Your task to perform on an android device: Go to notification settings Image 0: 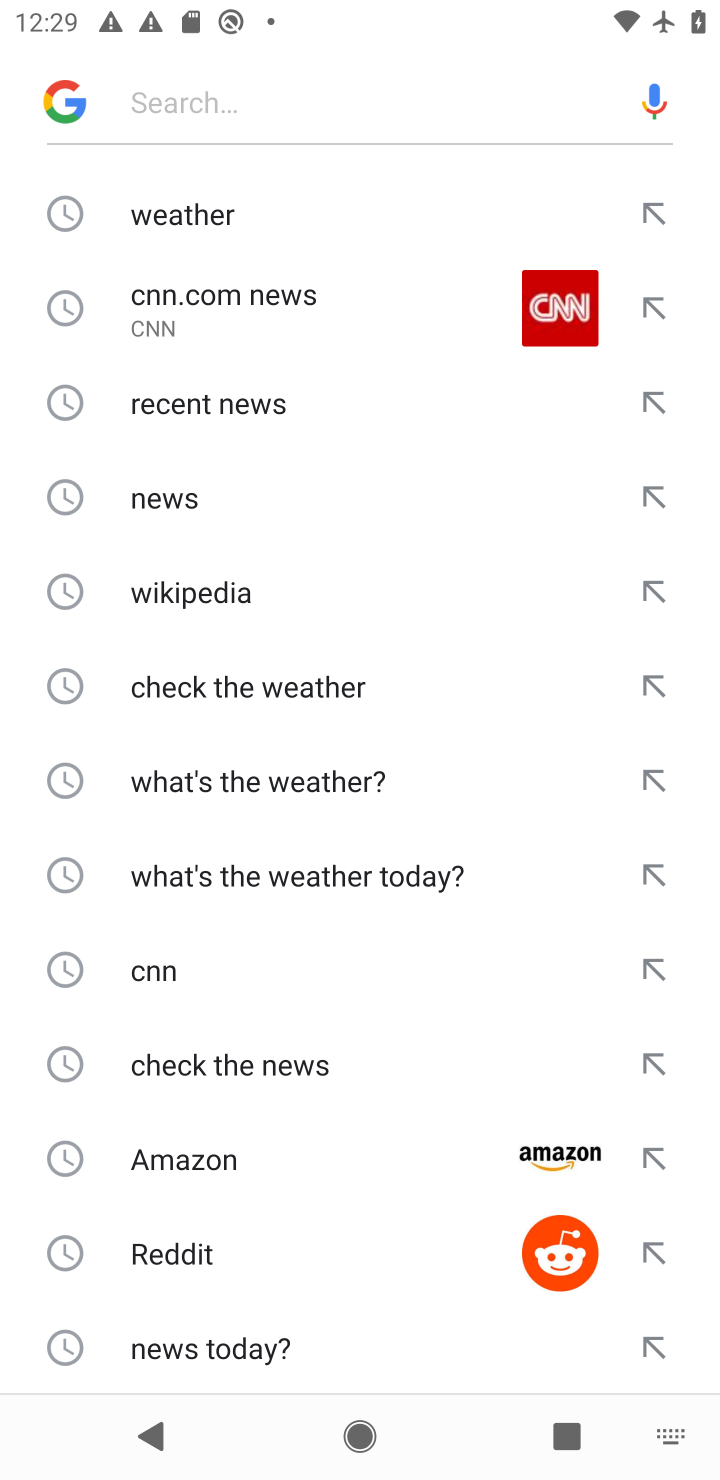
Step 0: drag from (377, 1297) to (286, 565)
Your task to perform on an android device: Go to notification settings Image 1: 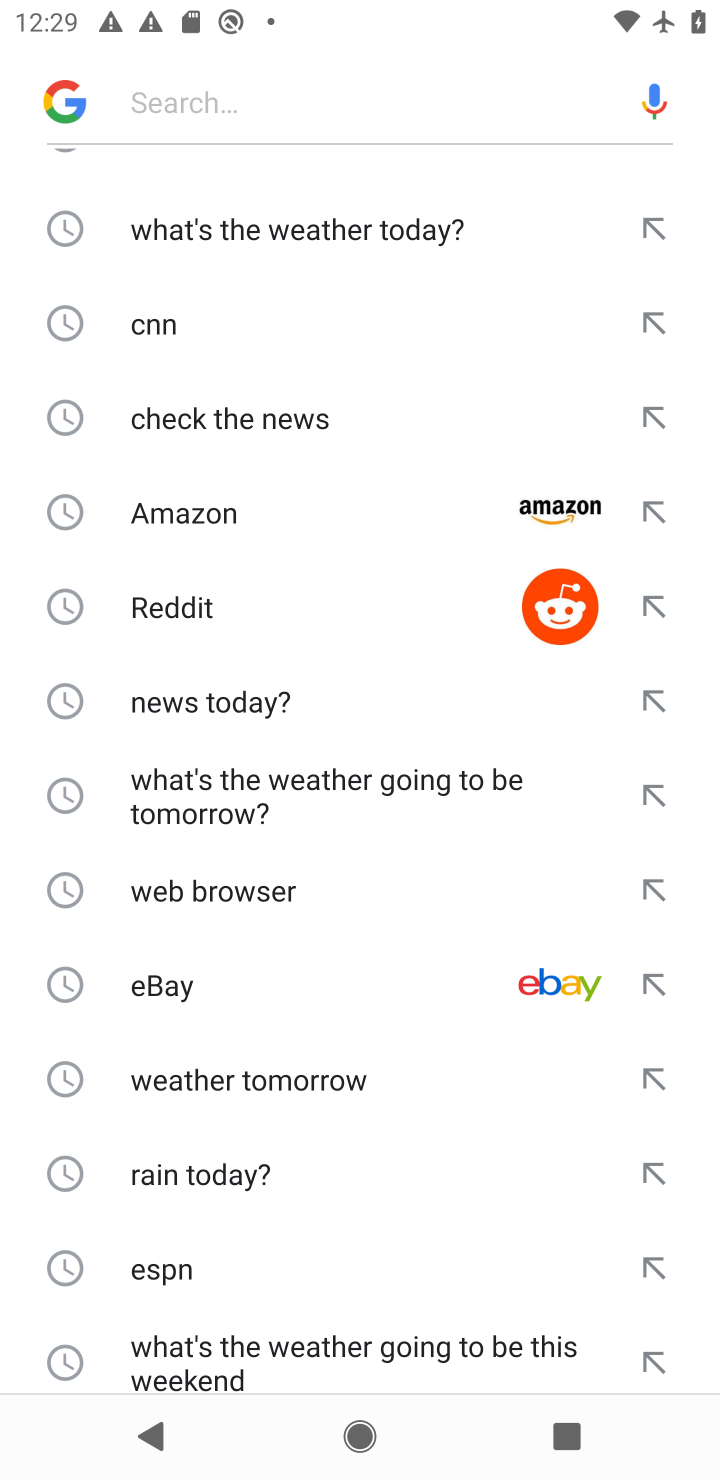
Step 1: press home button
Your task to perform on an android device: Go to notification settings Image 2: 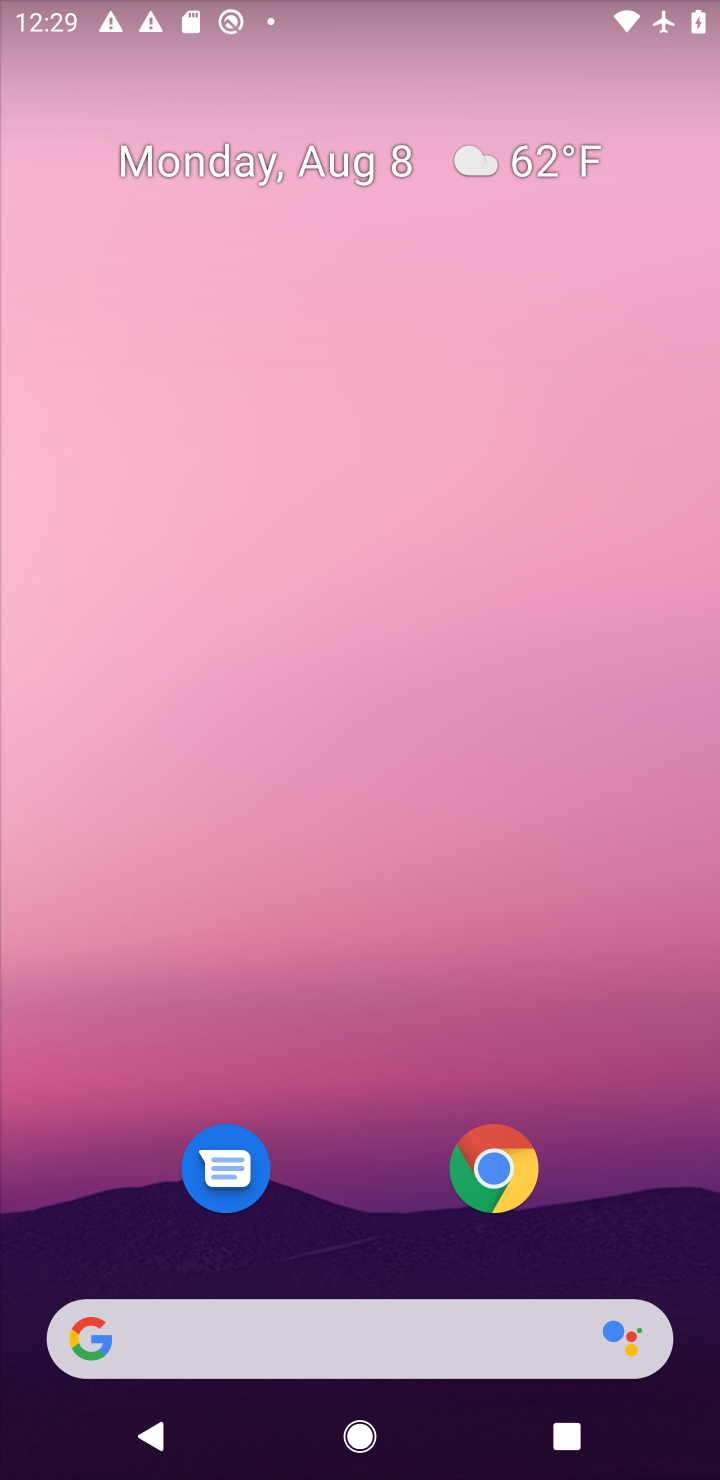
Step 2: drag from (321, 1259) to (286, 232)
Your task to perform on an android device: Go to notification settings Image 3: 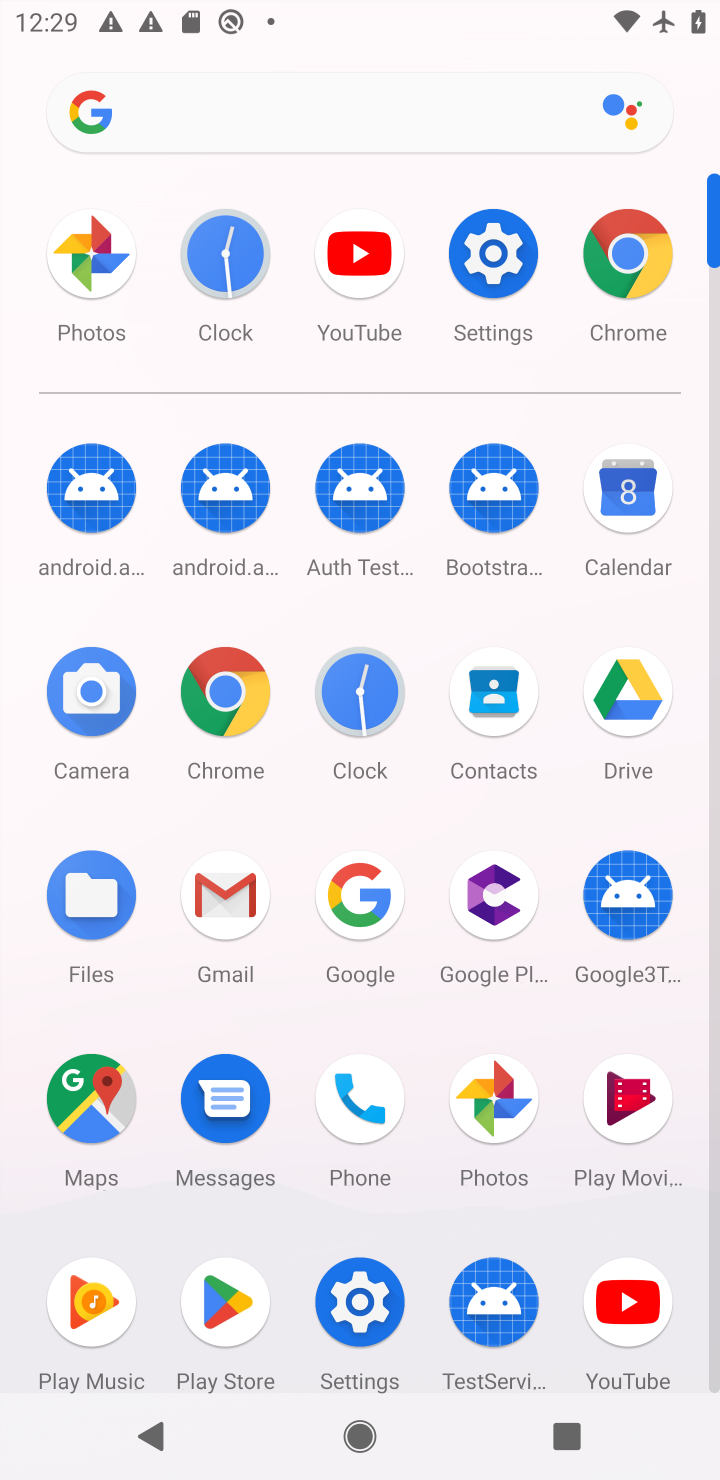
Step 3: click (505, 294)
Your task to perform on an android device: Go to notification settings Image 4: 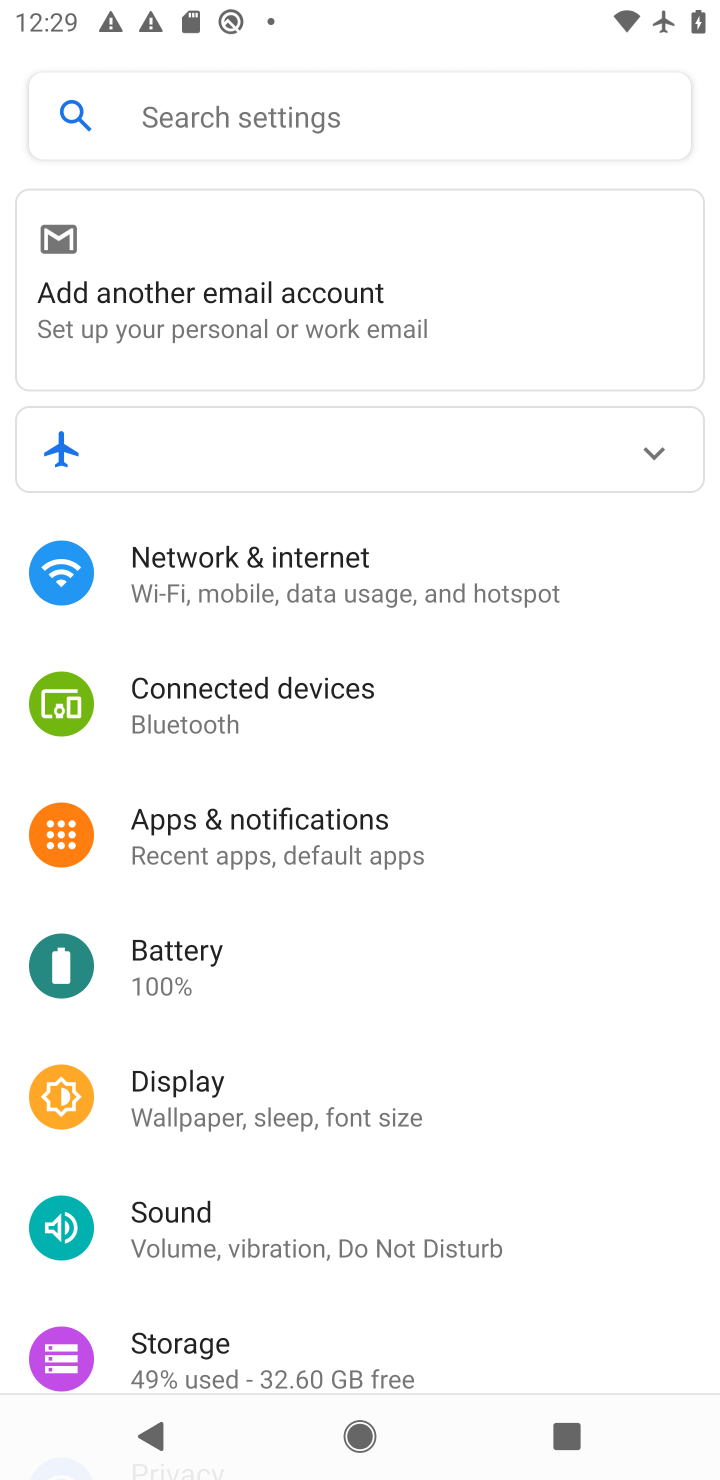
Step 4: click (370, 872)
Your task to perform on an android device: Go to notification settings Image 5: 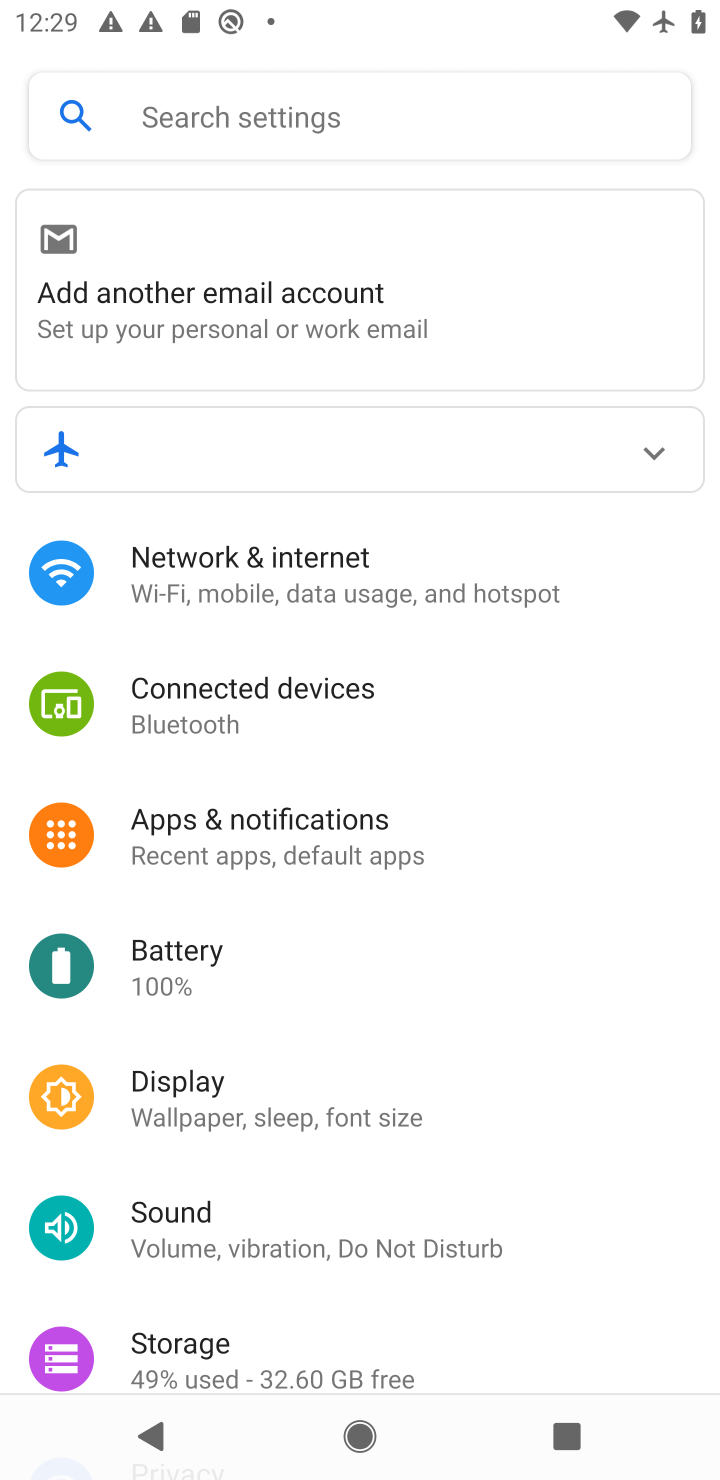
Step 5: task complete